Your task to perform on an android device: What is the news today? Image 0: 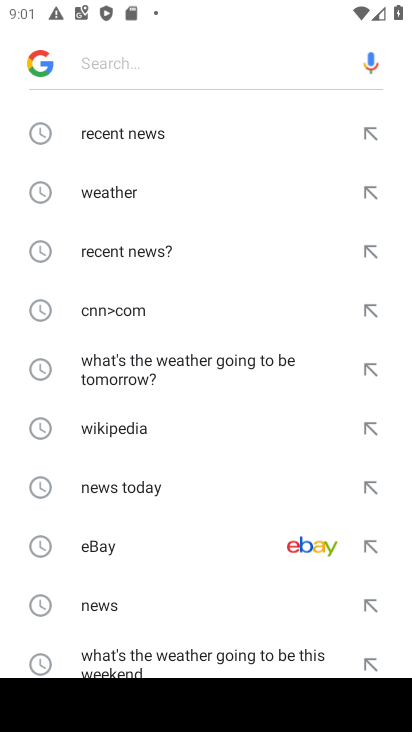
Step 0: press home button
Your task to perform on an android device: What is the news today? Image 1: 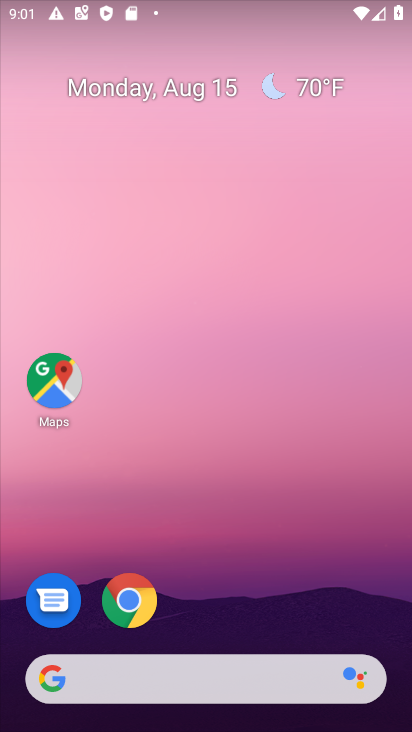
Step 1: task complete